Your task to perform on an android device: open wifi settings Image 0: 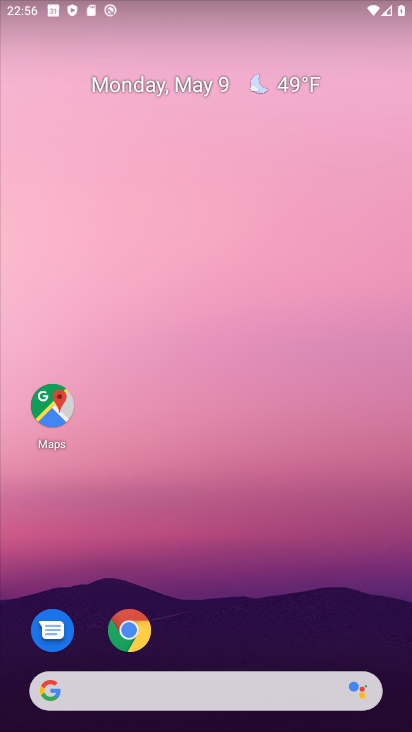
Step 0: drag from (243, 619) to (187, 140)
Your task to perform on an android device: open wifi settings Image 1: 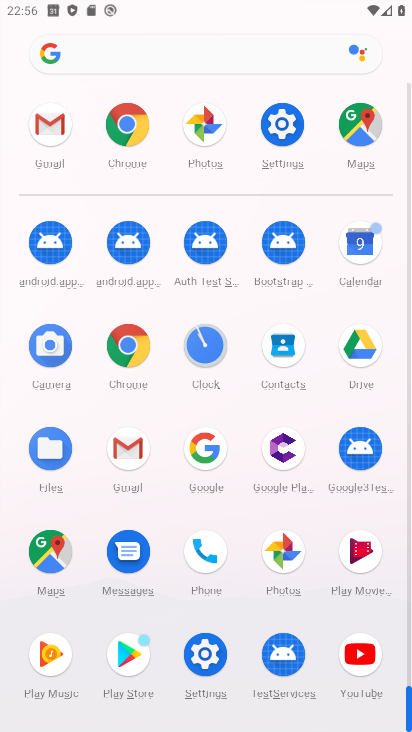
Step 1: click (270, 113)
Your task to perform on an android device: open wifi settings Image 2: 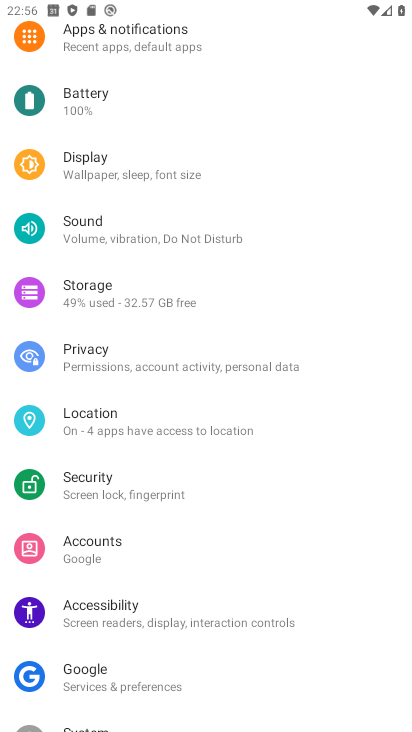
Step 2: drag from (102, 108) to (111, 595)
Your task to perform on an android device: open wifi settings Image 3: 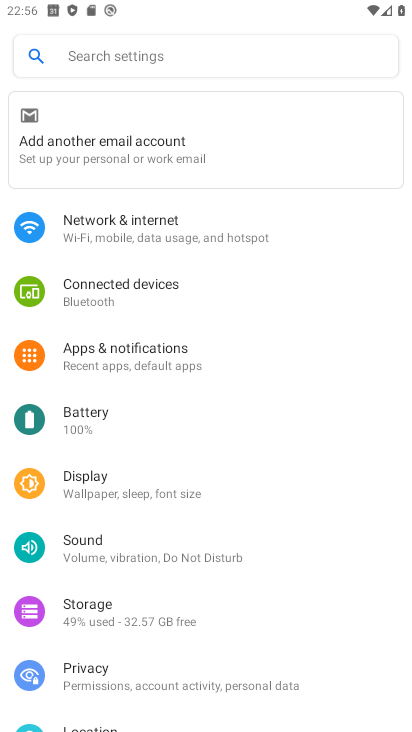
Step 3: click (154, 244)
Your task to perform on an android device: open wifi settings Image 4: 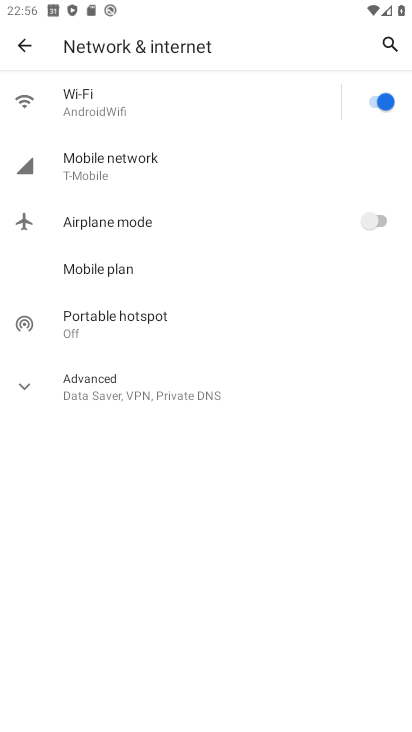
Step 4: click (141, 99)
Your task to perform on an android device: open wifi settings Image 5: 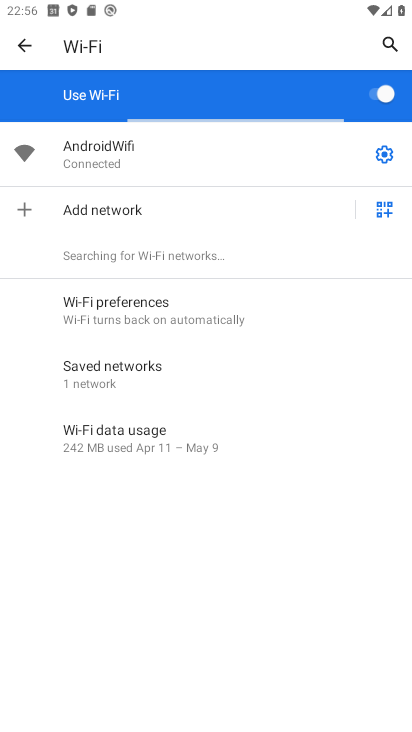
Step 5: task complete